Your task to perform on an android device: Add "razer blade" to the cart on newegg.com Image 0: 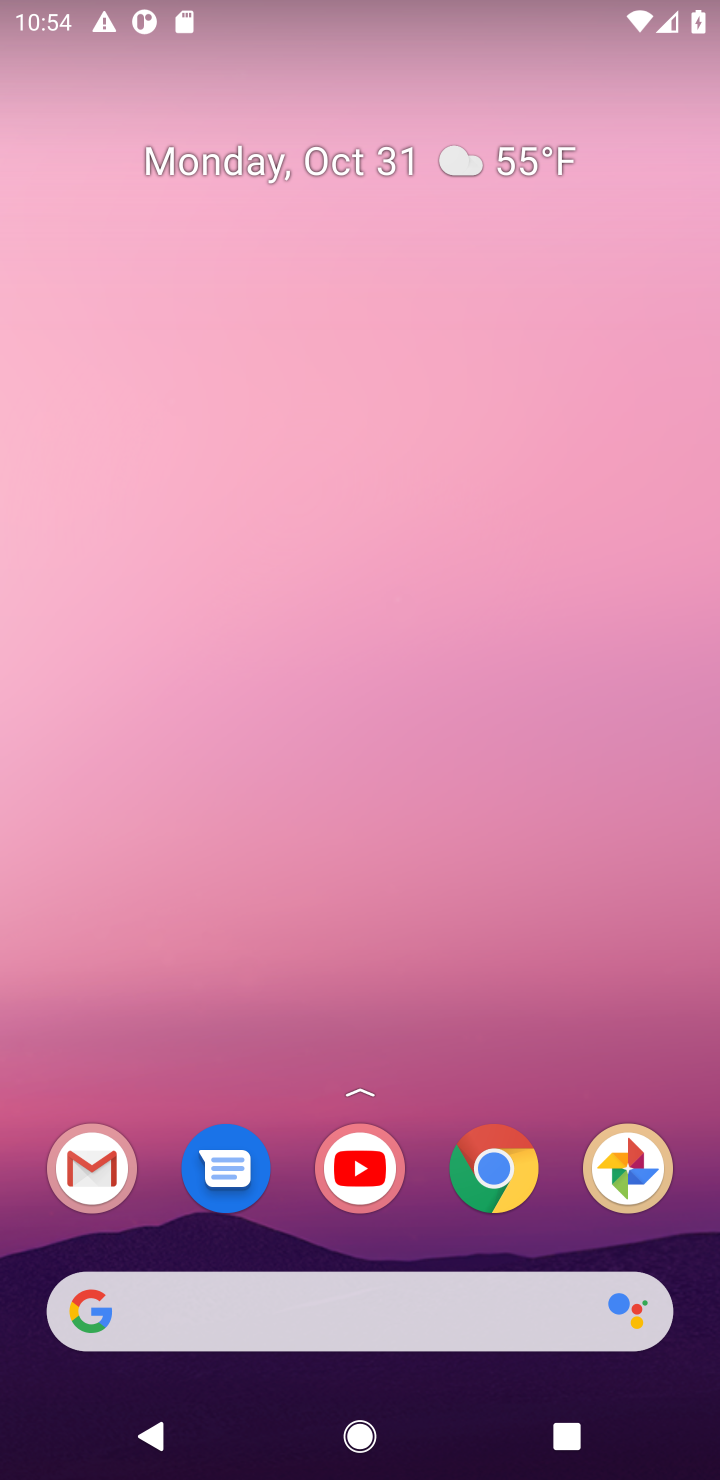
Step 0: click (489, 1171)
Your task to perform on an android device: Add "razer blade" to the cart on newegg.com Image 1: 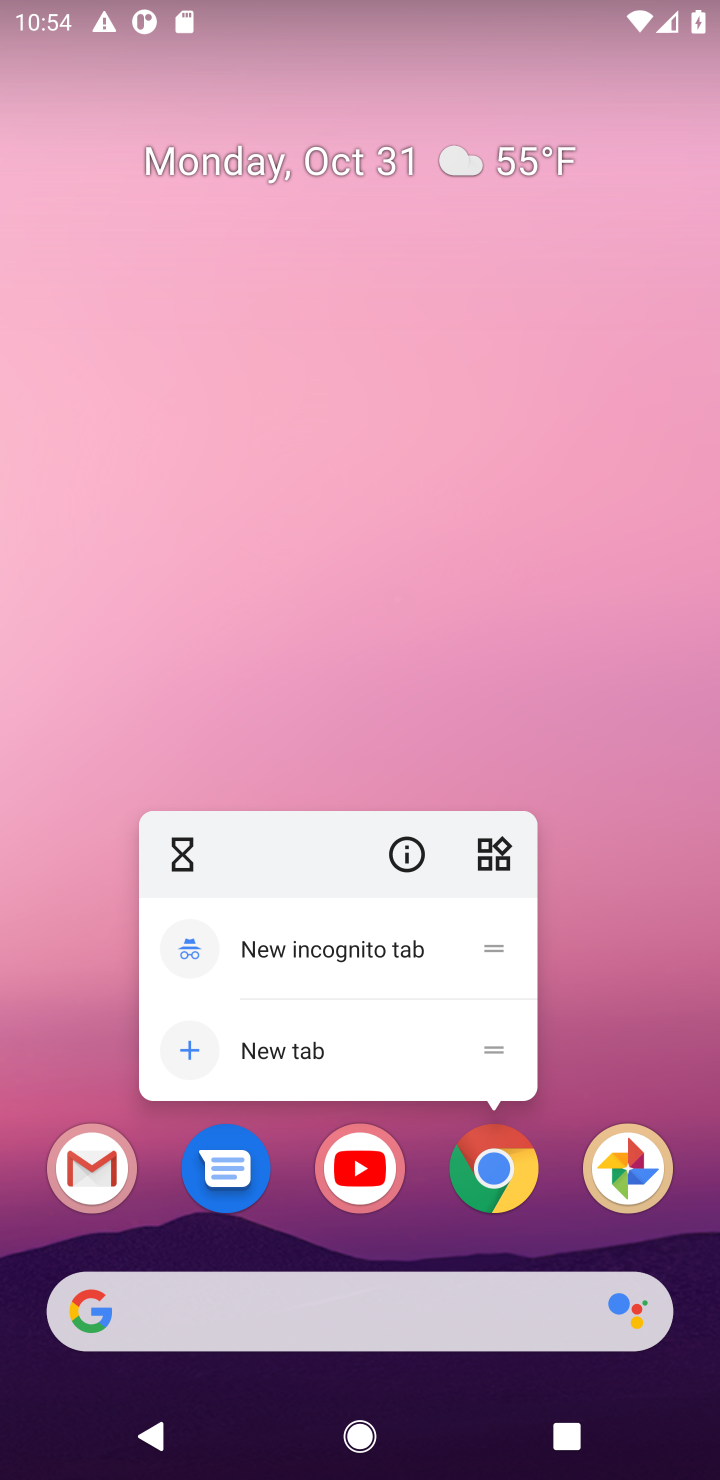
Step 1: click (489, 1171)
Your task to perform on an android device: Add "razer blade" to the cart on newegg.com Image 2: 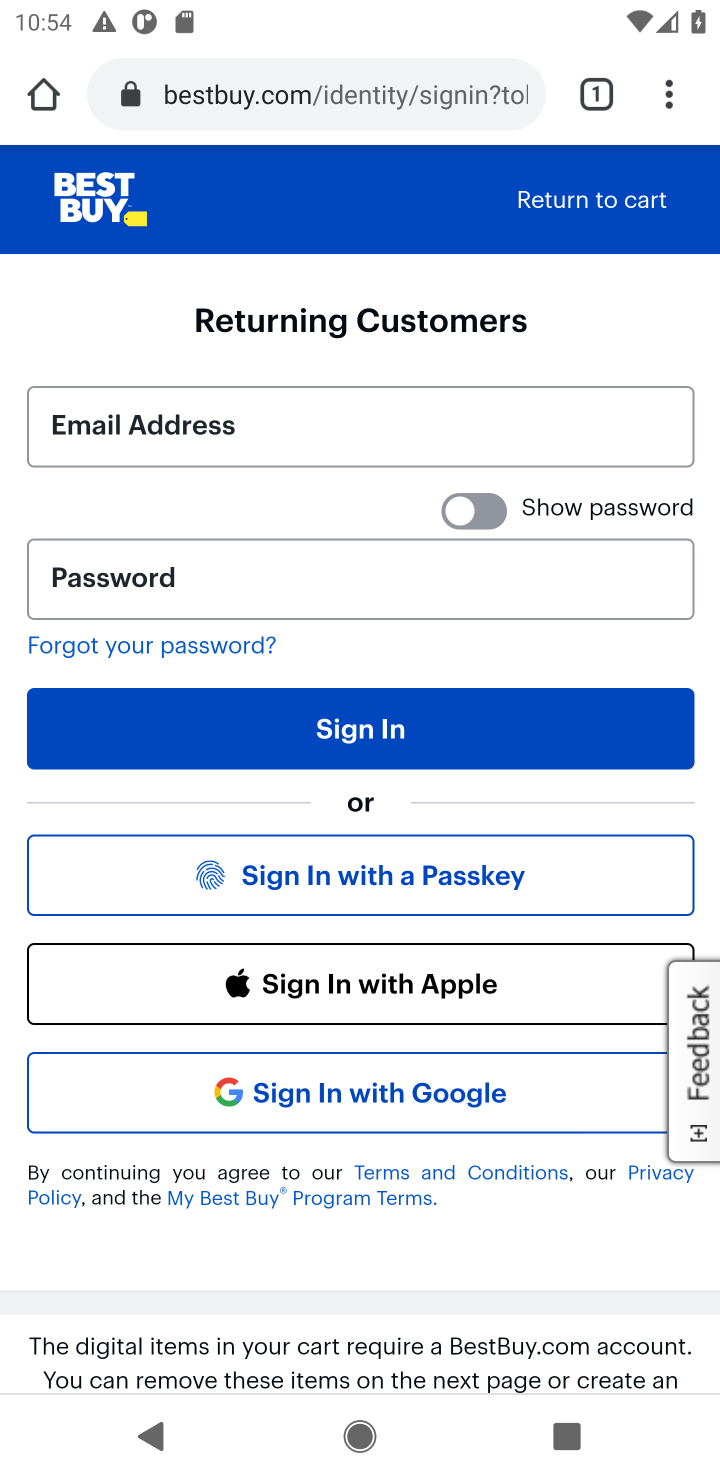
Step 2: click (387, 90)
Your task to perform on an android device: Add "razer blade" to the cart on newegg.com Image 3: 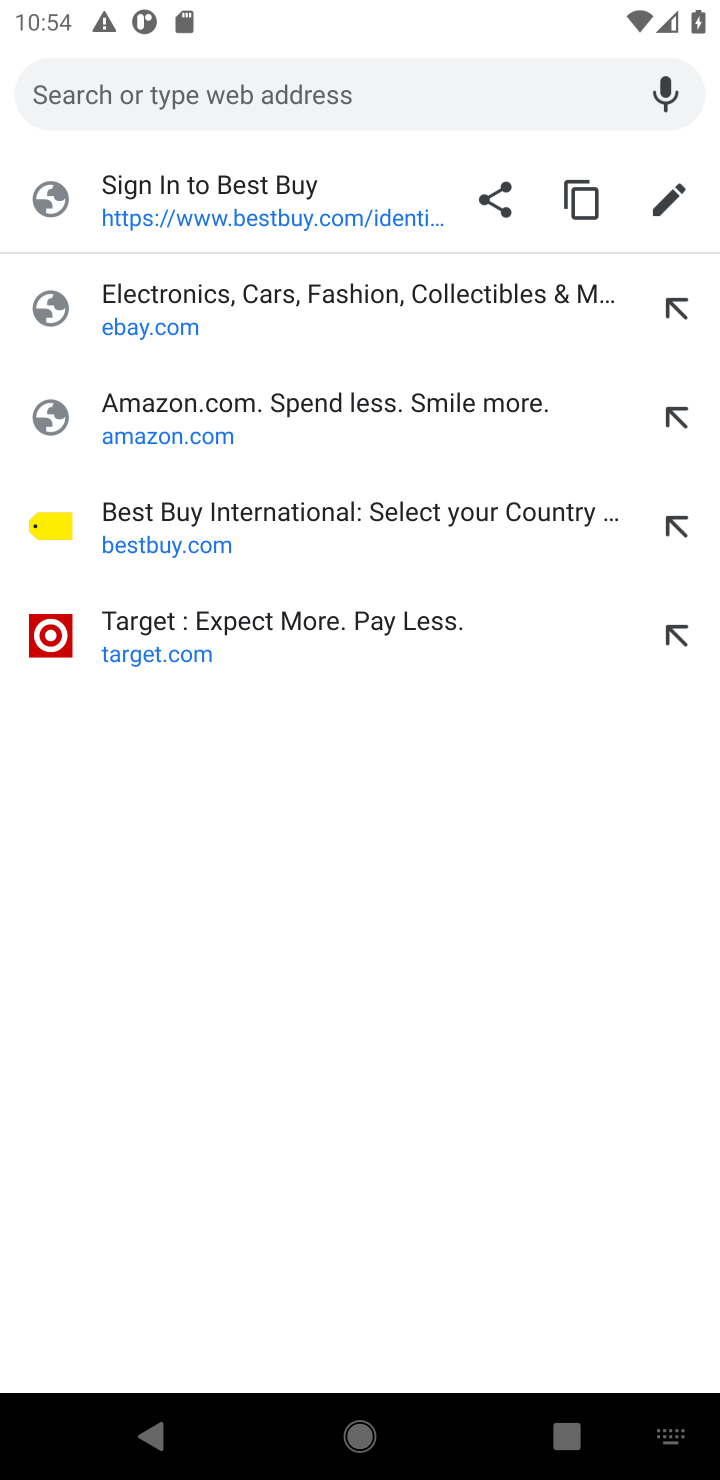
Step 3: type "newegg"
Your task to perform on an android device: Add "razer blade" to the cart on newegg.com Image 4: 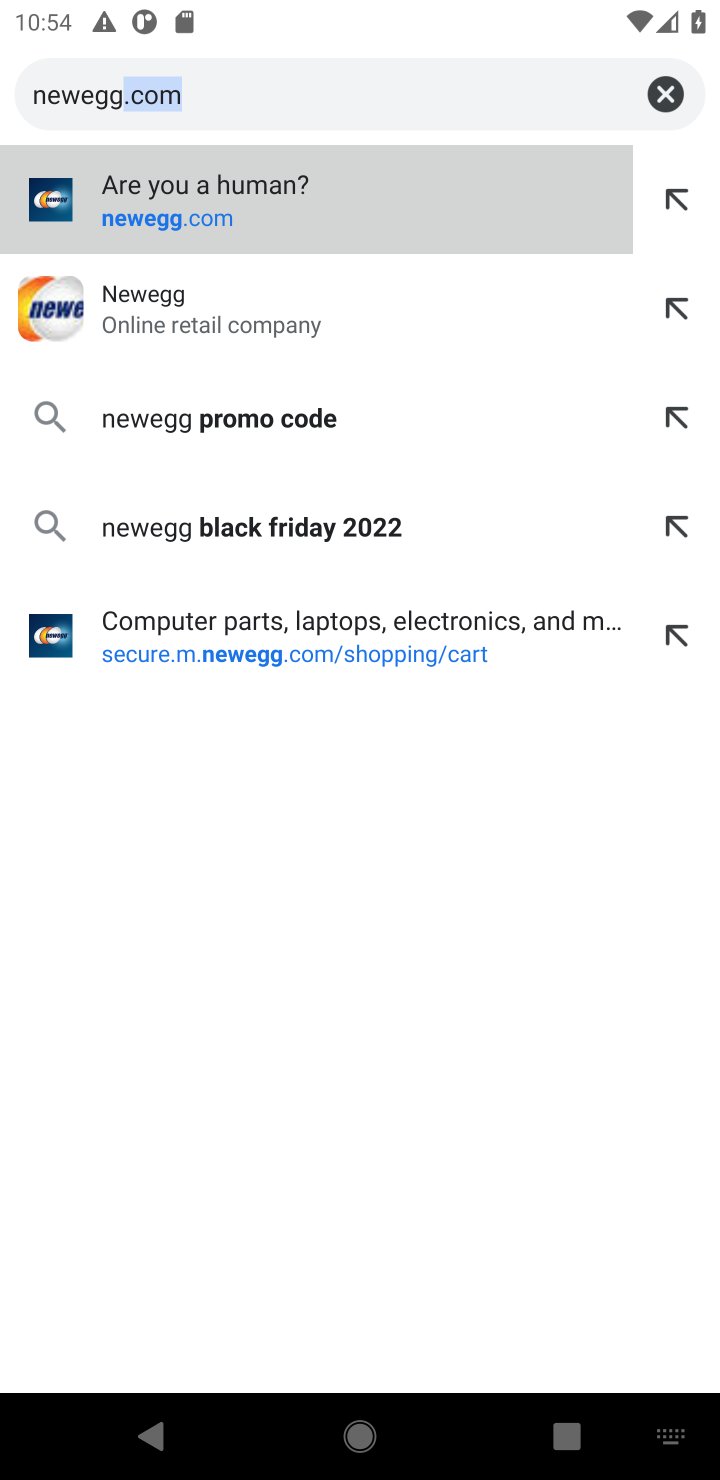
Step 4: press enter
Your task to perform on an android device: Add "razer blade" to the cart on newegg.com Image 5: 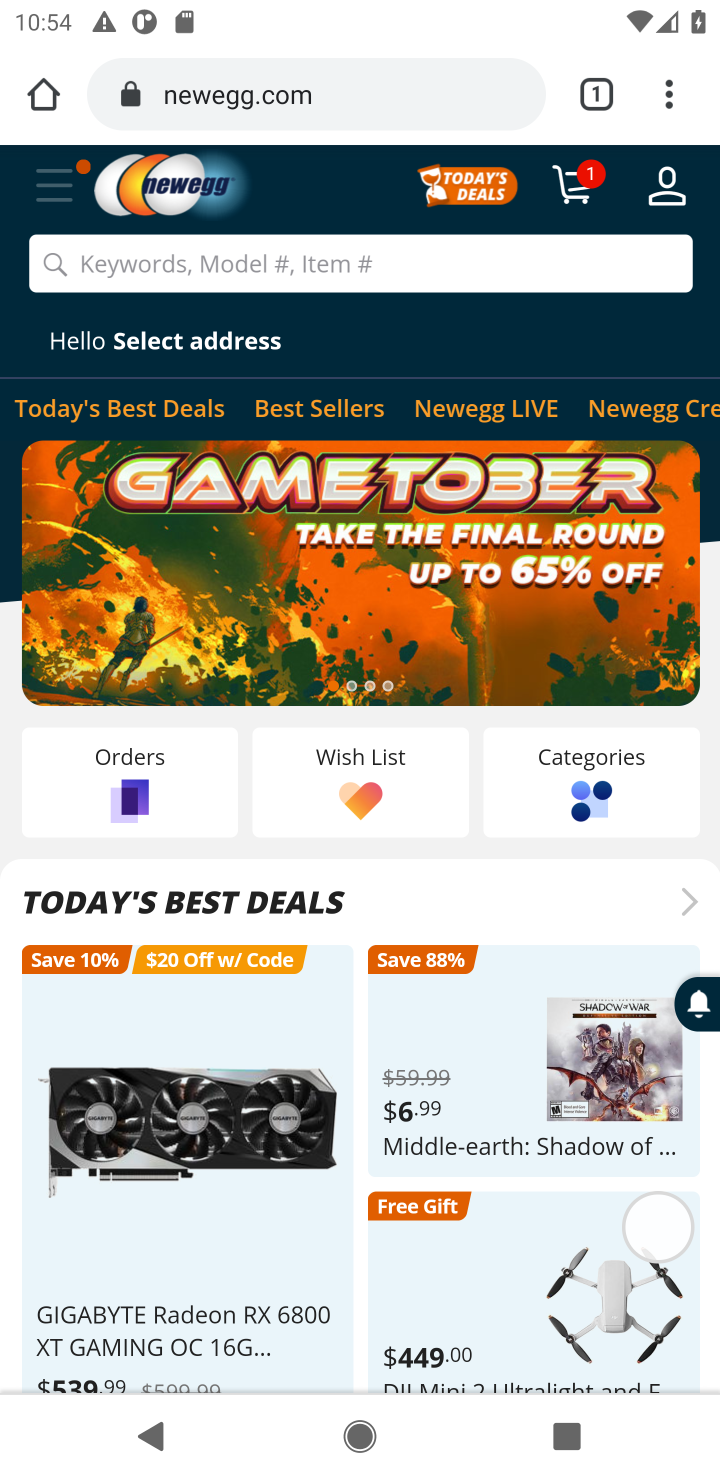
Step 5: click (354, 260)
Your task to perform on an android device: Add "razer blade" to the cart on newegg.com Image 6: 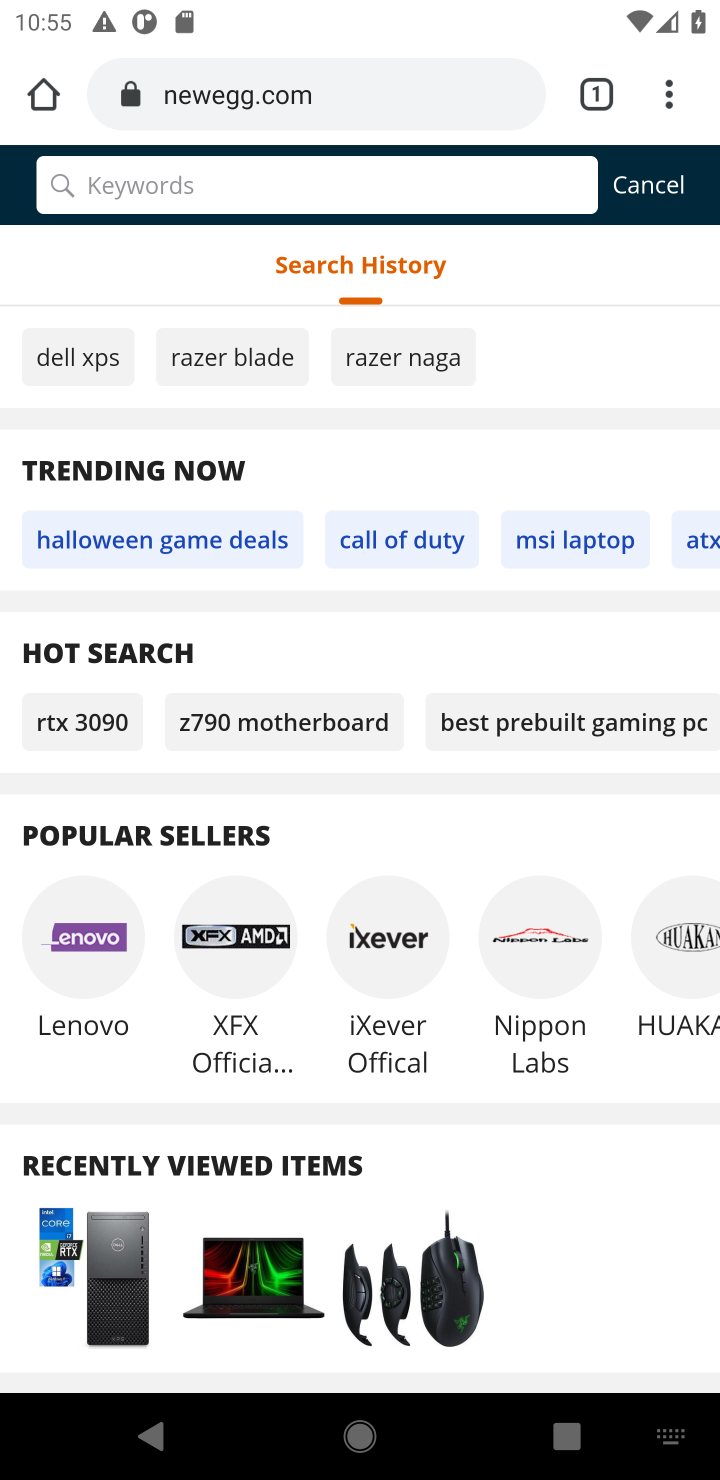
Step 6: type "razer blade"
Your task to perform on an android device: Add "razer blade" to the cart on newegg.com Image 7: 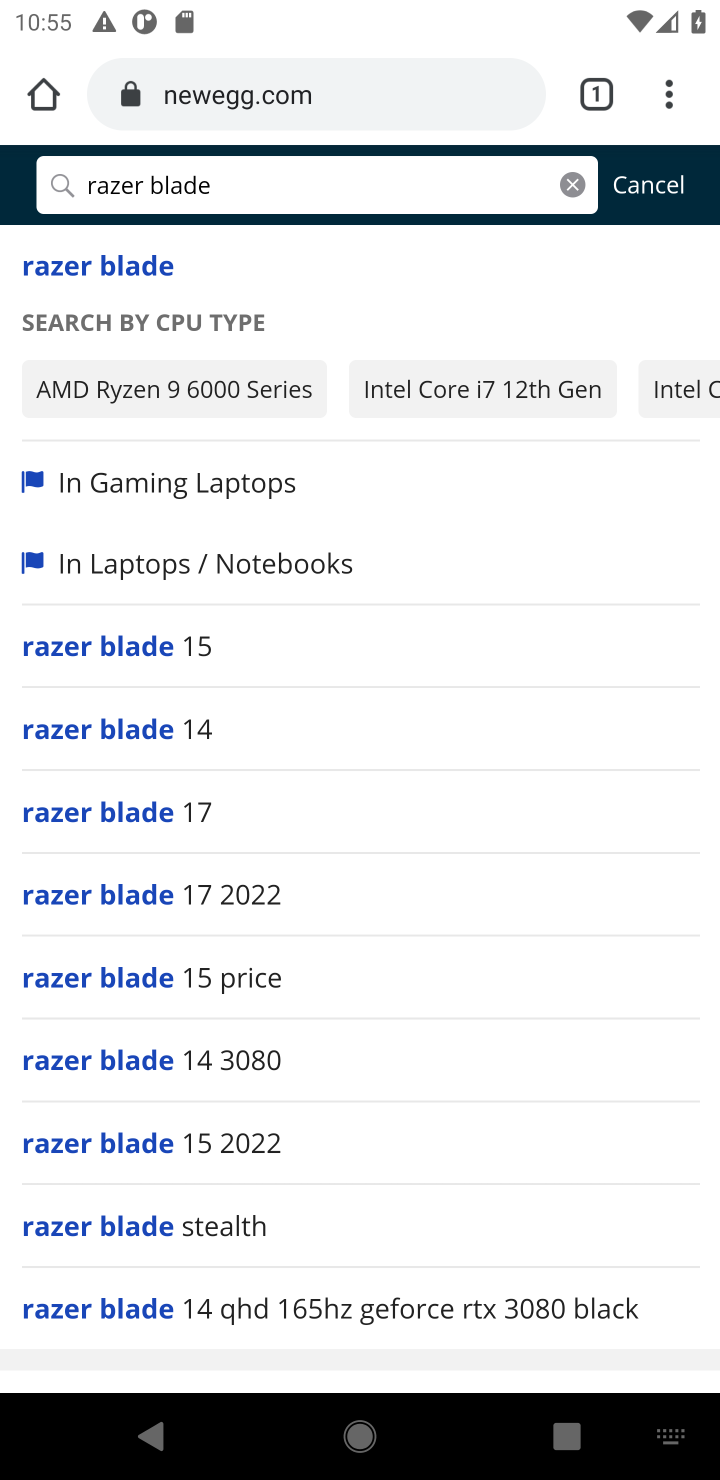
Step 7: click (135, 263)
Your task to perform on an android device: Add "razer blade" to the cart on newegg.com Image 8: 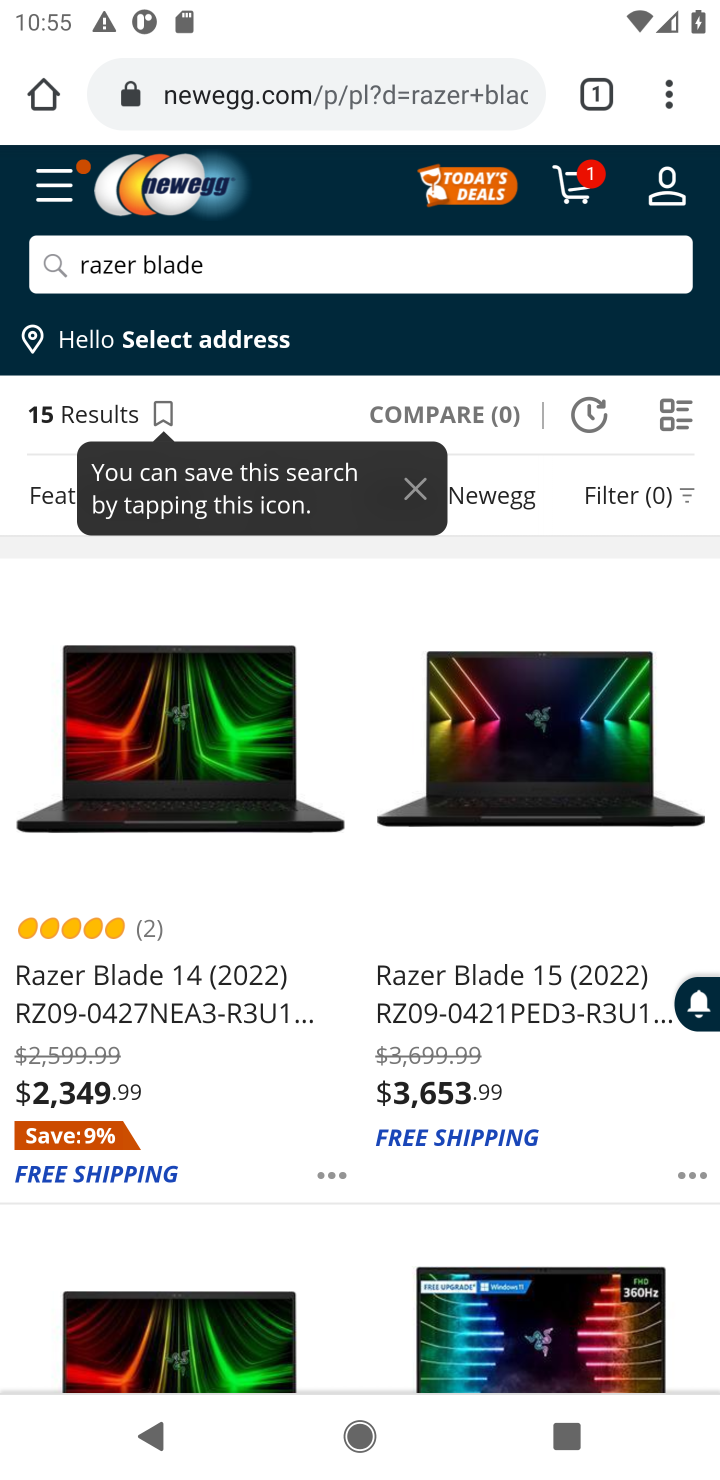
Step 8: click (73, 797)
Your task to perform on an android device: Add "razer blade" to the cart on newegg.com Image 9: 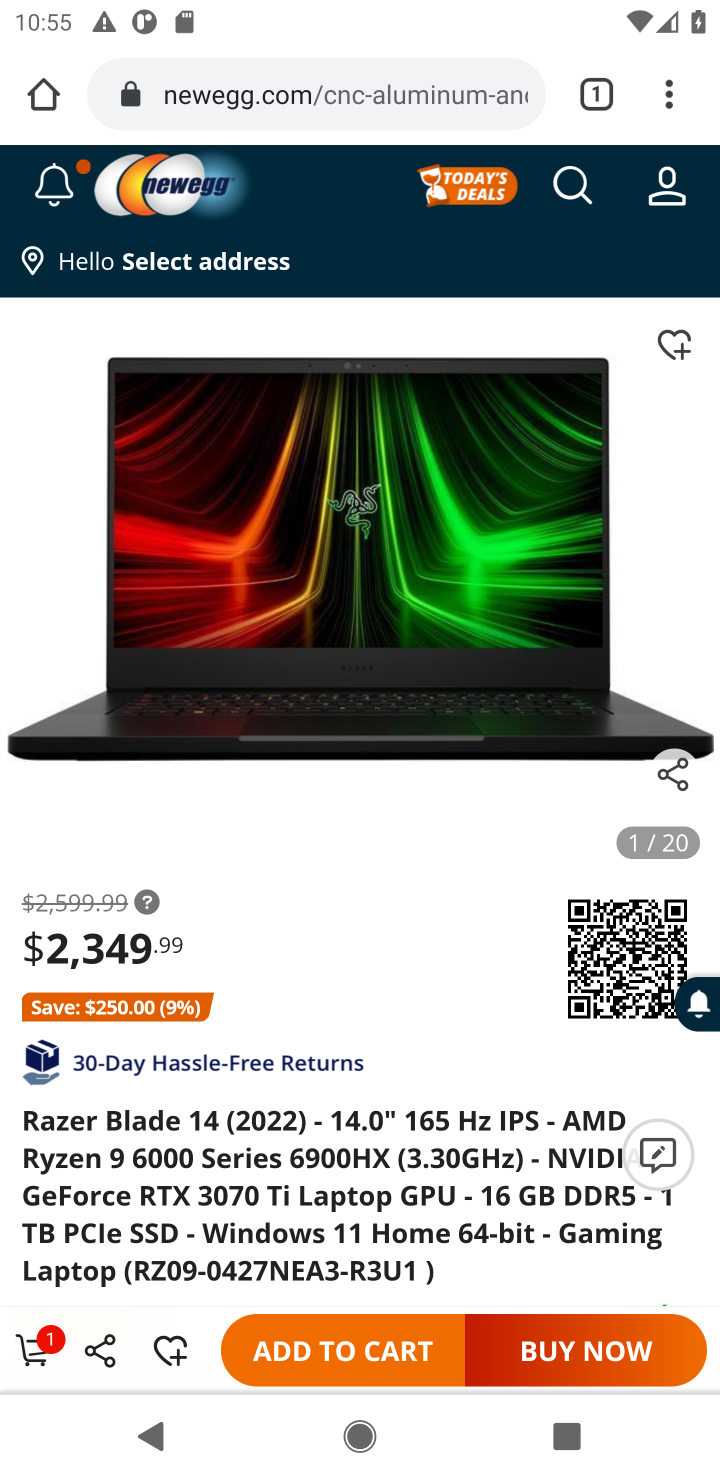
Step 9: click (299, 1362)
Your task to perform on an android device: Add "razer blade" to the cart on newegg.com Image 10: 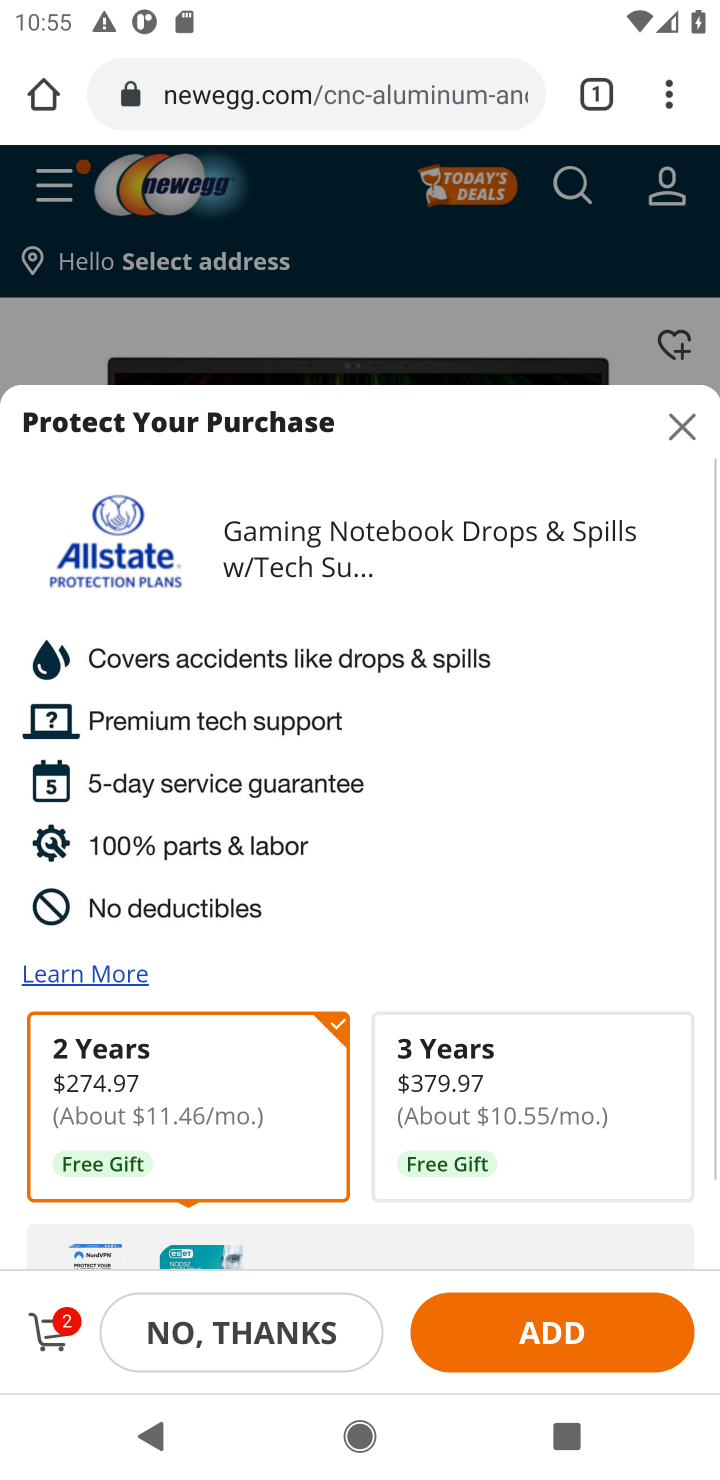
Step 10: click (256, 1332)
Your task to perform on an android device: Add "razer blade" to the cart on newegg.com Image 11: 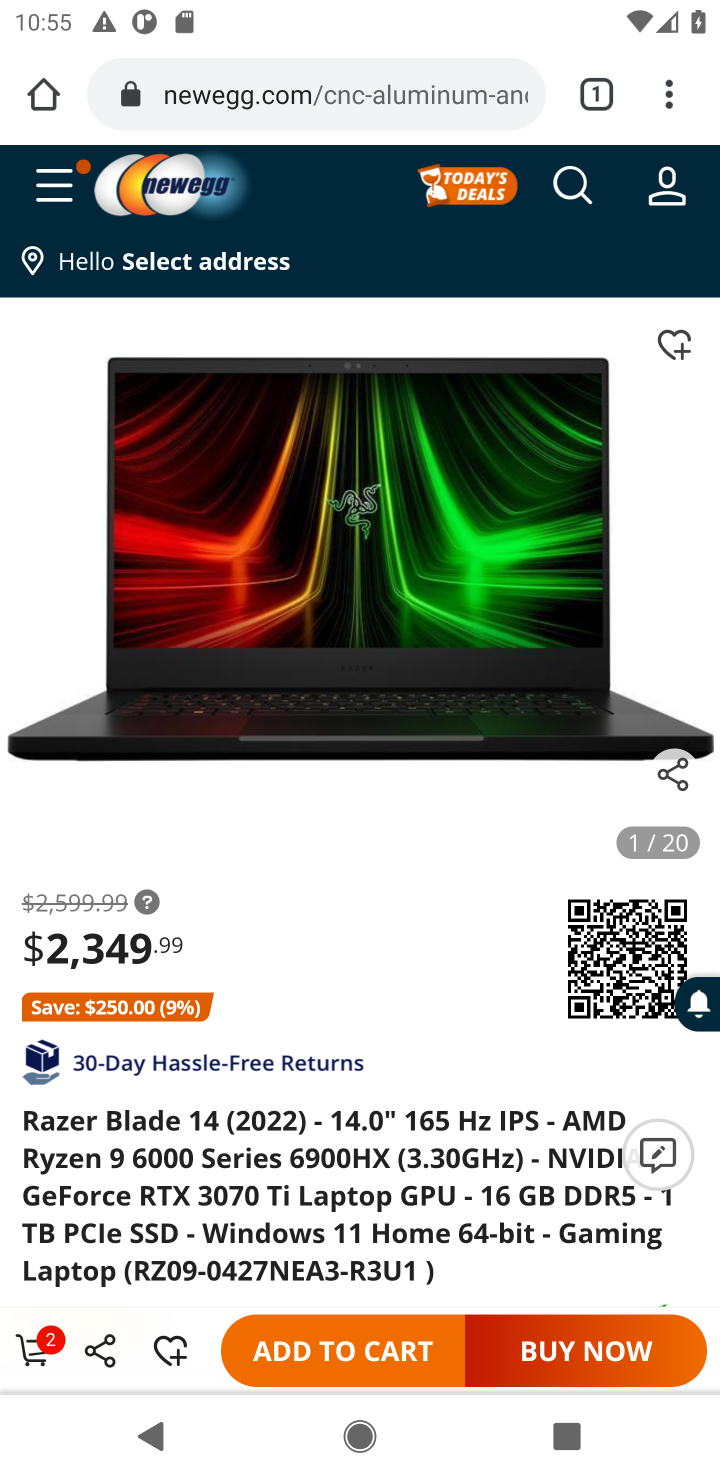
Step 11: task complete